Your task to perform on an android device: Go to battery settings Image 0: 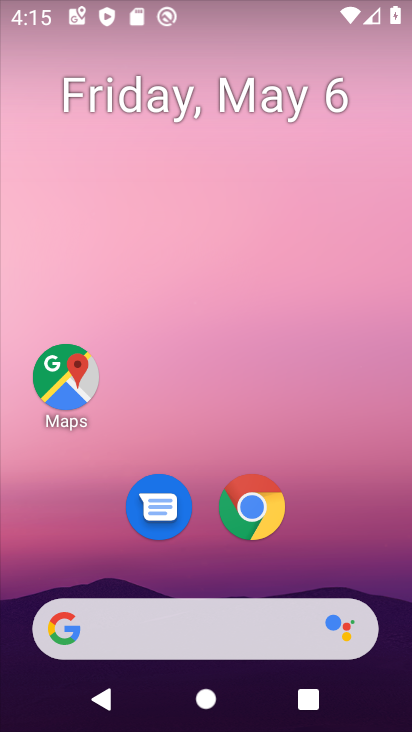
Step 0: drag from (329, 519) to (161, 2)
Your task to perform on an android device: Go to battery settings Image 1: 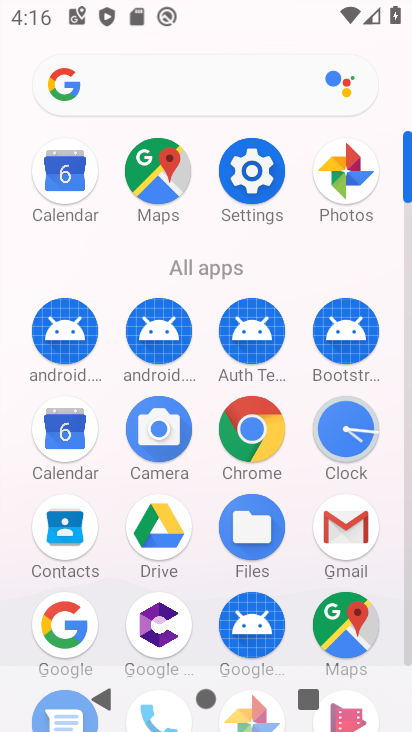
Step 1: click (245, 216)
Your task to perform on an android device: Go to battery settings Image 2: 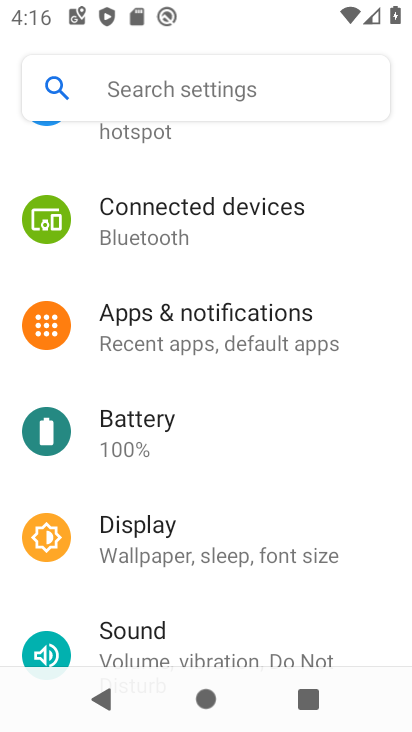
Step 2: click (140, 426)
Your task to perform on an android device: Go to battery settings Image 3: 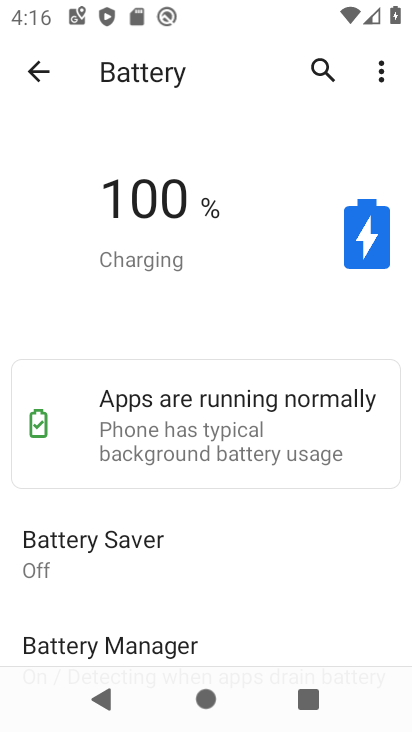
Step 3: task complete